Your task to perform on an android device: check battery use Image 0: 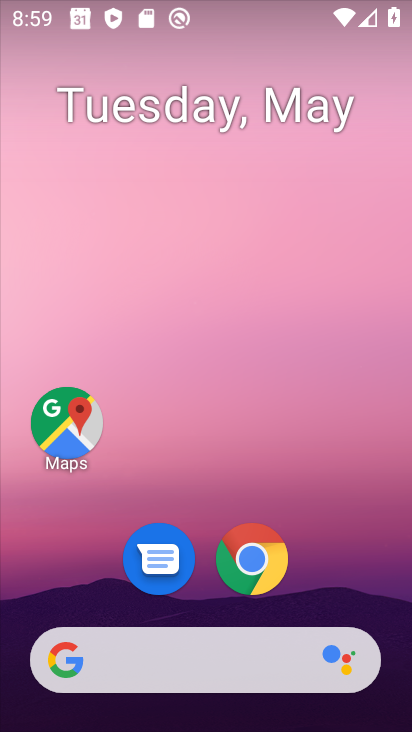
Step 0: drag from (368, 654) to (145, 33)
Your task to perform on an android device: check battery use Image 1: 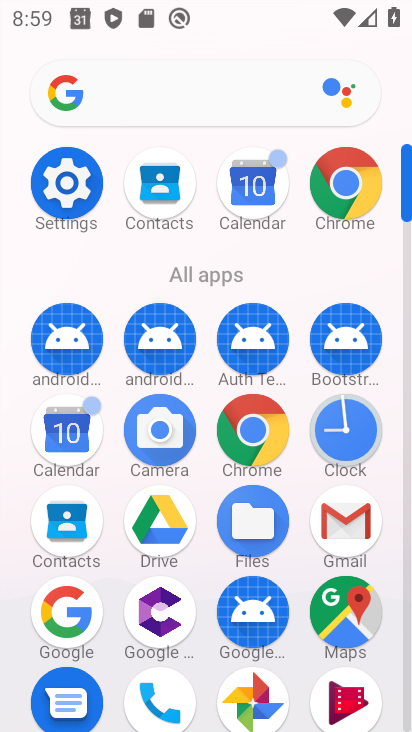
Step 1: drag from (323, 483) to (198, 21)
Your task to perform on an android device: check battery use Image 2: 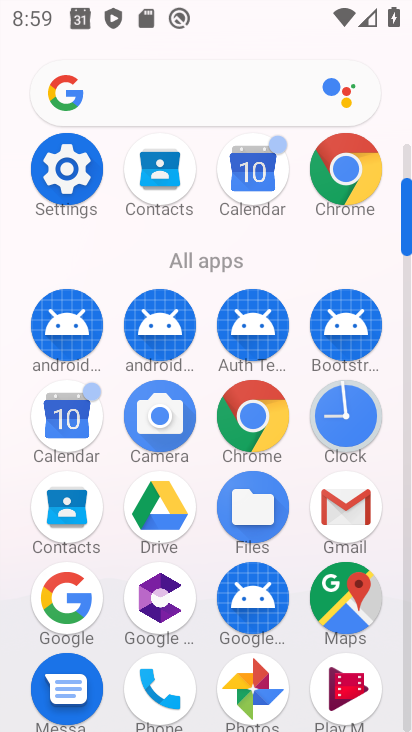
Step 2: click (63, 173)
Your task to perform on an android device: check battery use Image 3: 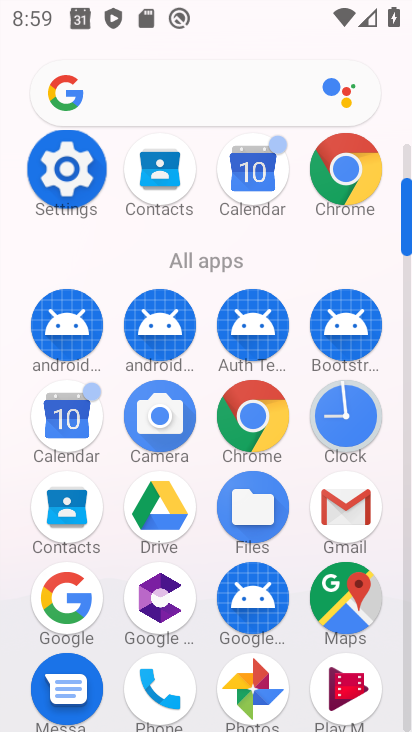
Step 3: click (63, 173)
Your task to perform on an android device: check battery use Image 4: 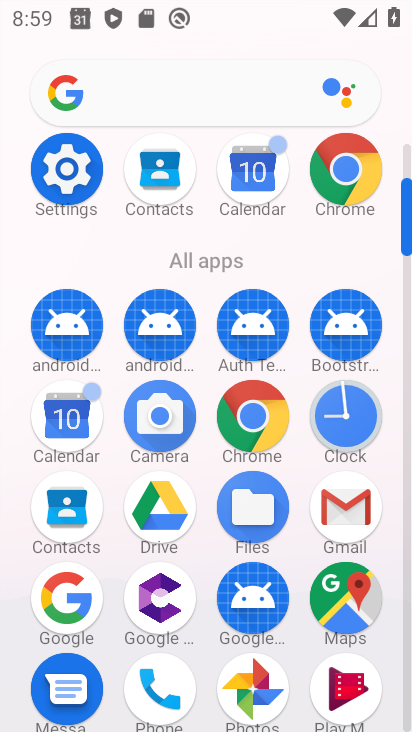
Step 4: click (73, 182)
Your task to perform on an android device: check battery use Image 5: 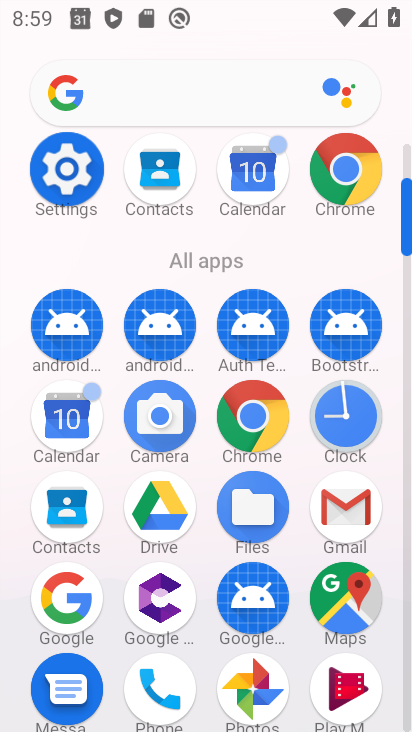
Step 5: click (73, 182)
Your task to perform on an android device: check battery use Image 6: 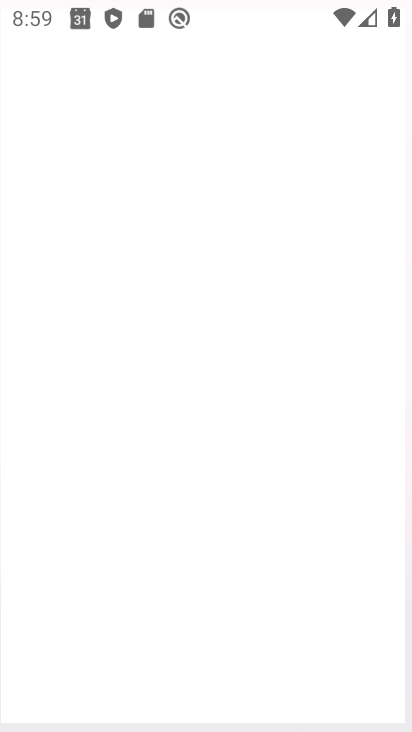
Step 6: click (73, 182)
Your task to perform on an android device: check battery use Image 7: 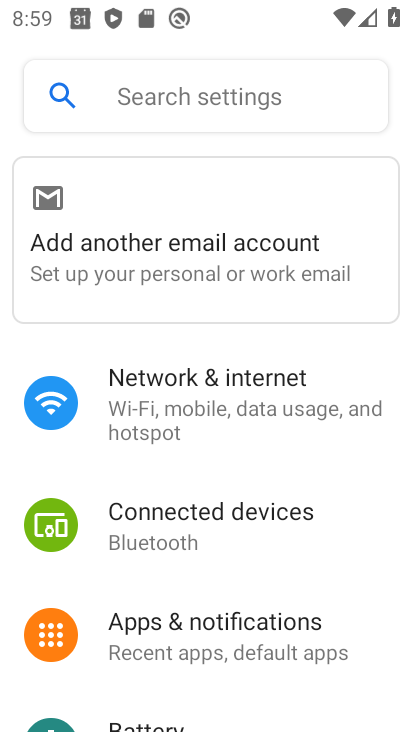
Step 7: drag from (260, 511) to (167, 269)
Your task to perform on an android device: check battery use Image 8: 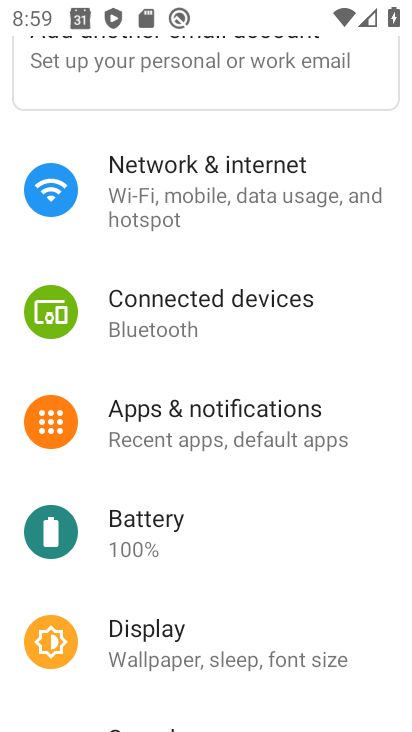
Step 8: click (132, 533)
Your task to perform on an android device: check battery use Image 9: 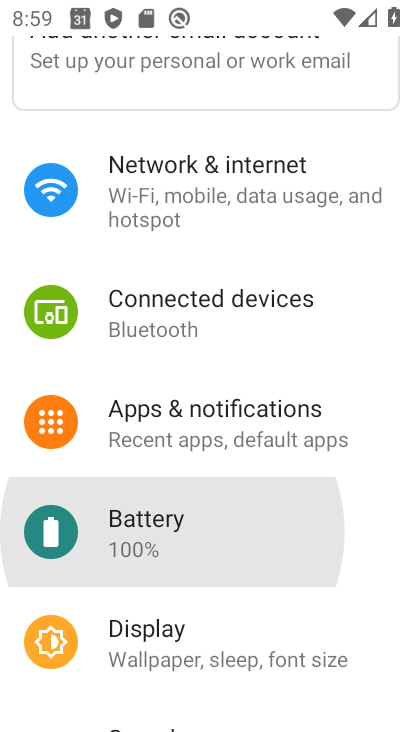
Step 9: click (132, 533)
Your task to perform on an android device: check battery use Image 10: 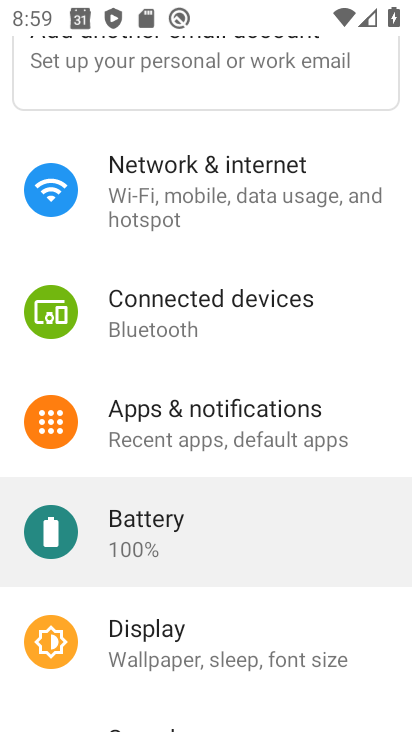
Step 10: click (132, 533)
Your task to perform on an android device: check battery use Image 11: 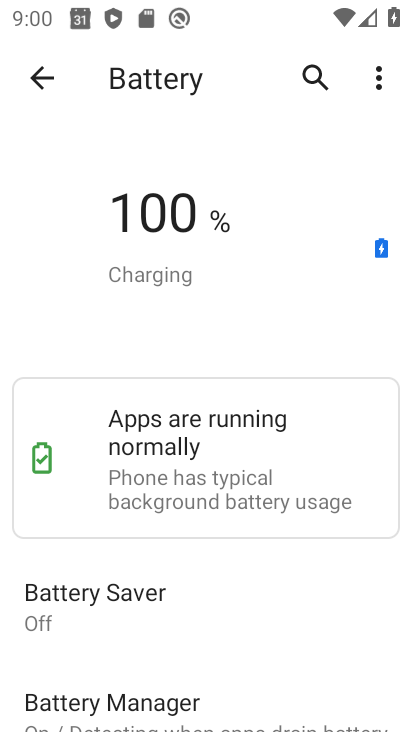
Step 11: task complete